Your task to perform on an android device: Open Google Chrome Image 0: 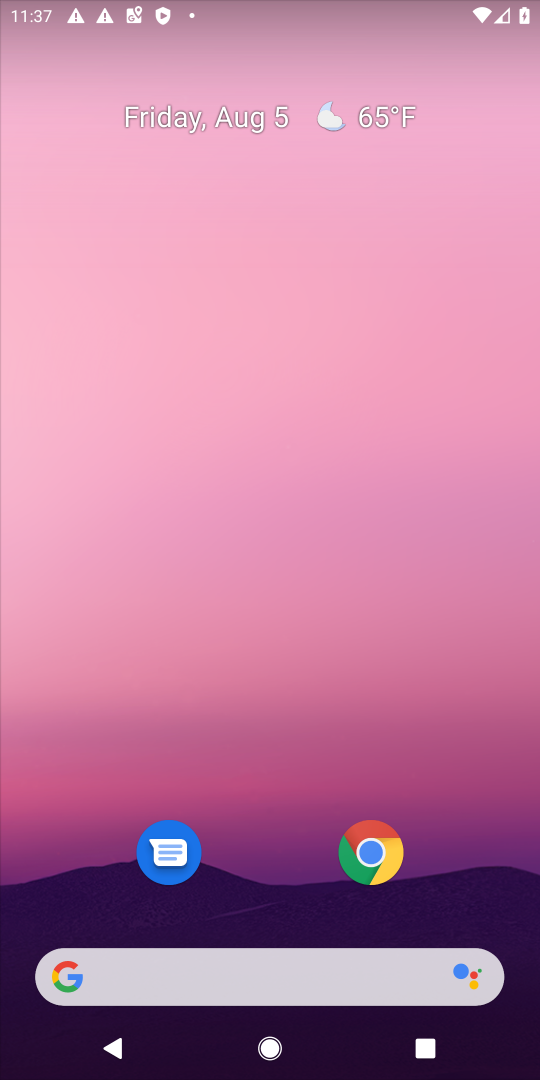
Step 0: drag from (418, 991) to (263, 224)
Your task to perform on an android device: Open Google Chrome Image 1: 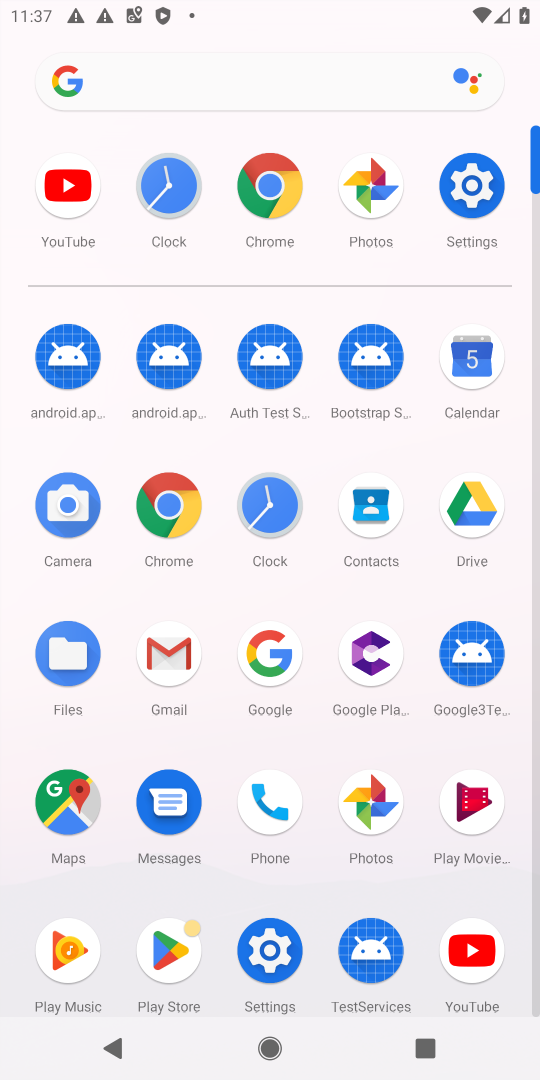
Step 1: click (272, 210)
Your task to perform on an android device: Open Google Chrome Image 2: 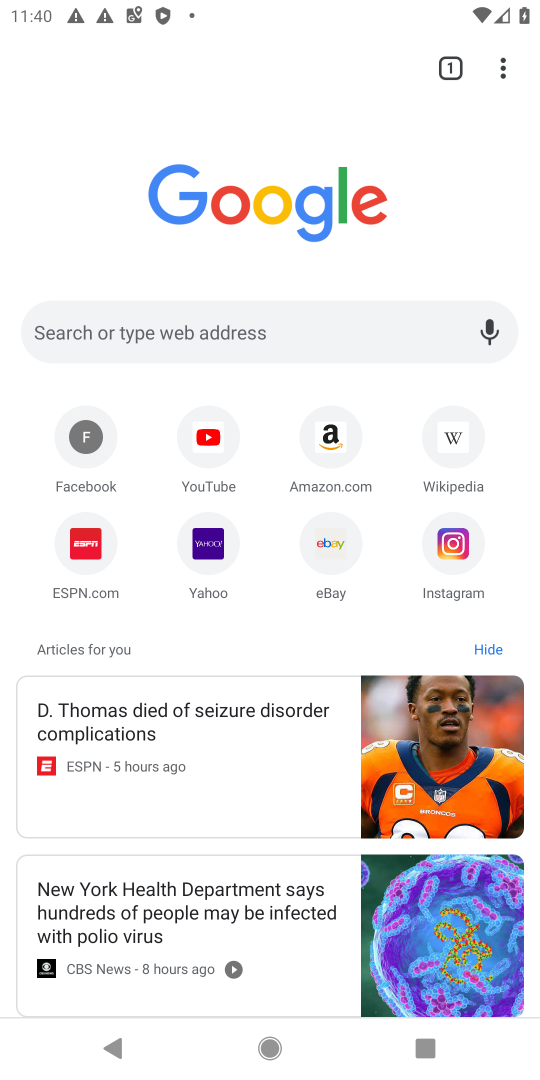
Step 2: task complete